Your task to perform on an android device: Go to internet settings Image 0: 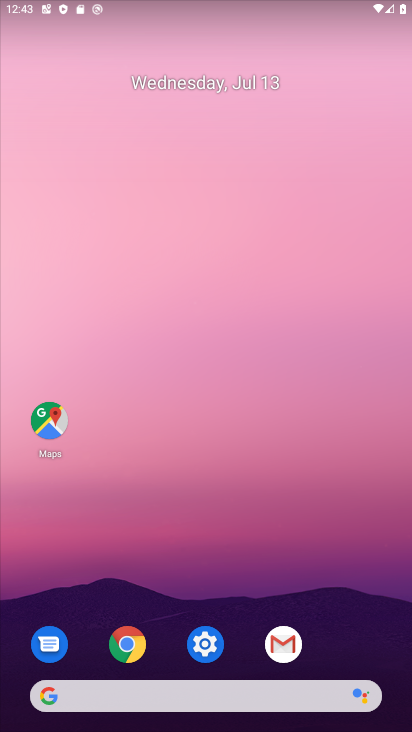
Step 0: click (208, 632)
Your task to perform on an android device: Go to internet settings Image 1: 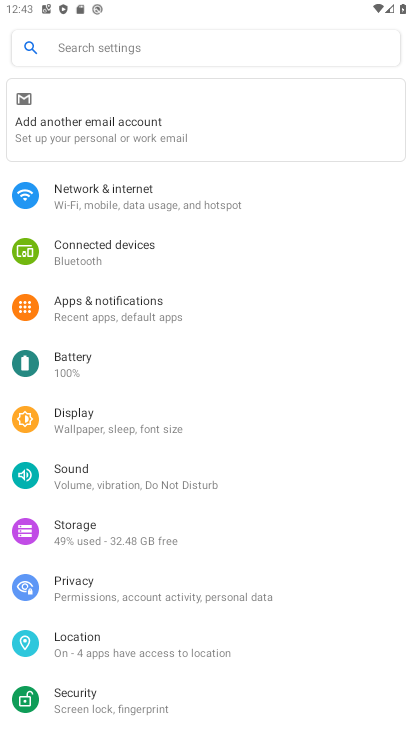
Step 1: click (141, 212)
Your task to perform on an android device: Go to internet settings Image 2: 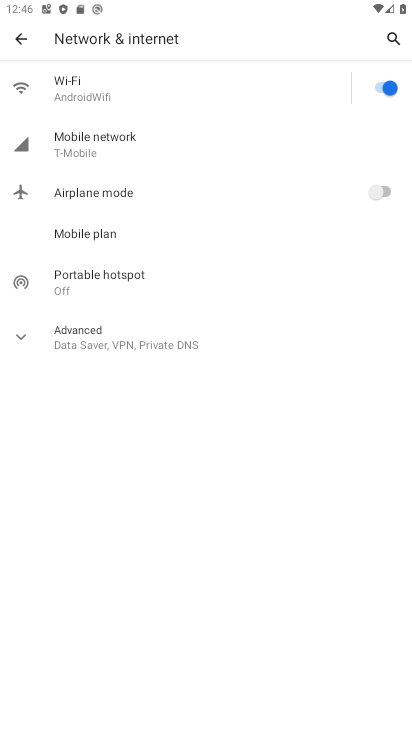
Step 2: task complete